Your task to perform on an android device: Show me productivity apps on the Play Store Image 0: 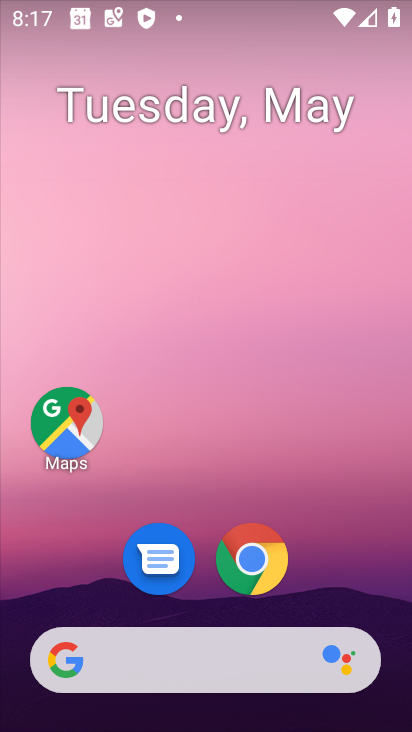
Step 0: drag from (187, 548) to (222, 68)
Your task to perform on an android device: Show me productivity apps on the Play Store Image 1: 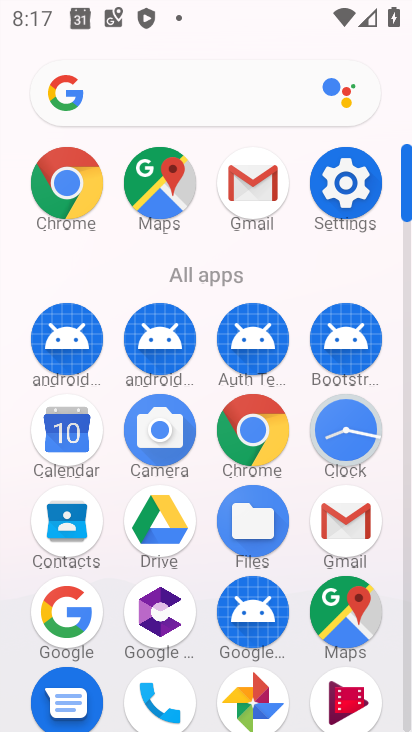
Step 1: drag from (232, 619) to (263, 122)
Your task to perform on an android device: Show me productivity apps on the Play Store Image 2: 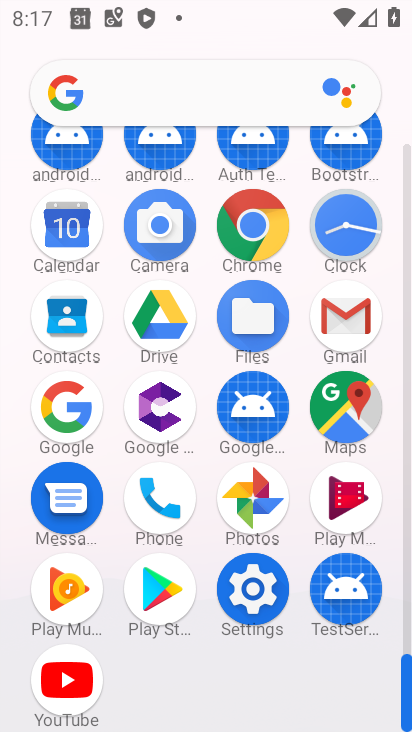
Step 2: click (158, 589)
Your task to perform on an android device: Show me productivity apps on the Play Store Image 3: 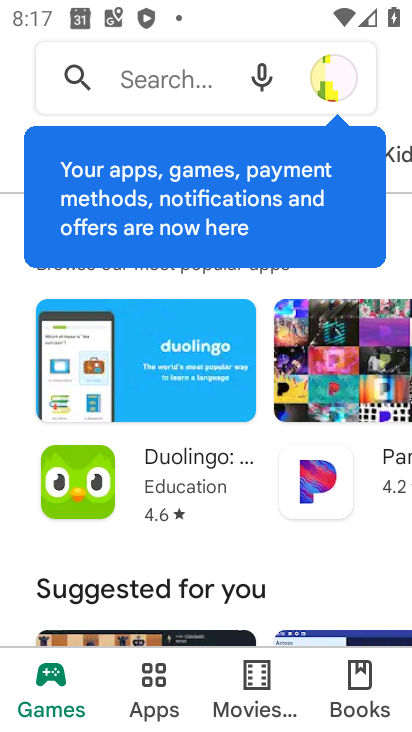
Step 3: click (144, 701)
Your task to perform on an android device: Show me productivity apps on the Play Store Image 4: 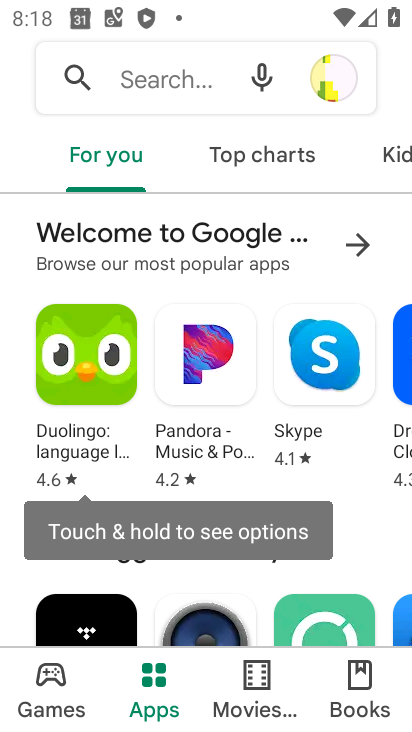
Step 4: drag from (184, 542) to (250, 90)
Your task to perform on an android device: Show me productivity apps on the Play Store Image 5: 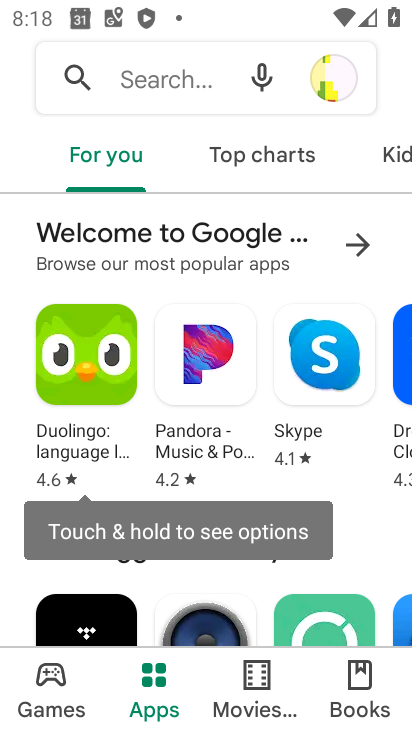
Step 5: drag from (258, 580) to (301, 111)
Your task to perform on an android device: Show me productivity apps on the Play Store Image 6: 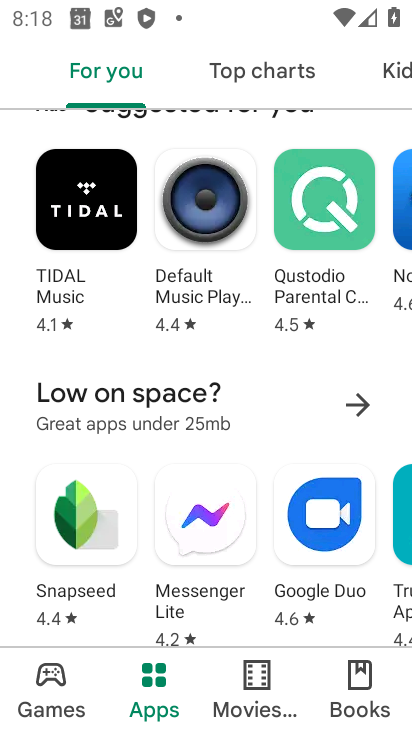
Step 6: drag from (201, 590) to (303, 83)
Your task to perform on an android device: Show me productivity apps on the Play Store Image 7: 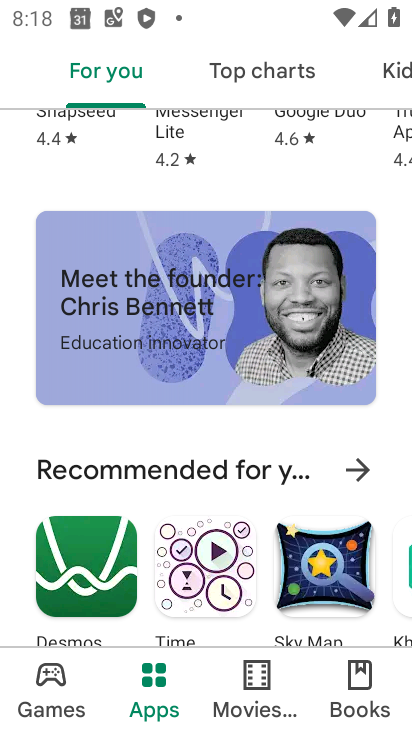
Step 7: drag from (198, 497) to (275, 67)
Your task to perform on an android device: Show me productivity apps on the Play Store Image 8: 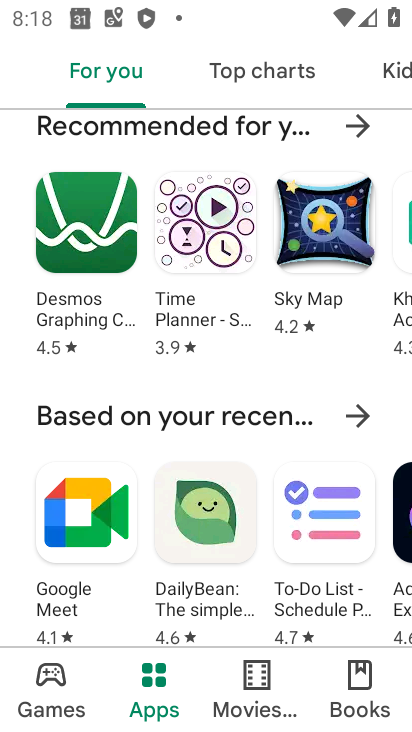
Step 8: drag from (208, 608) to (296, 97)
Your task to perform on an android device: Show me productivity apps on the Play Store Image 9: 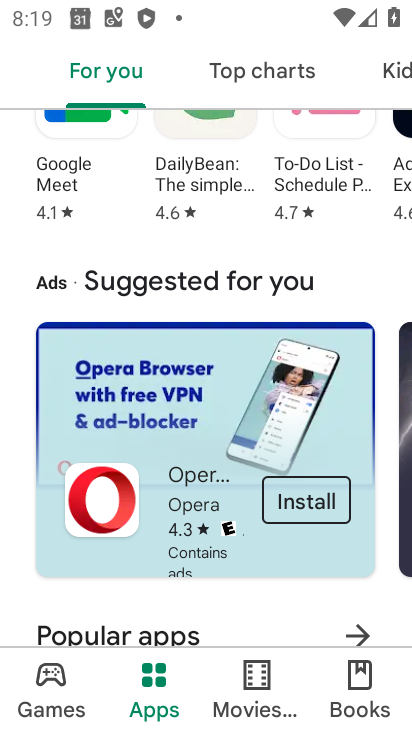
Step 9: drag from (228, 585) to (279, 160)
Your task to perform on an android device: Show me productivity apps on the Play Store Image 10: 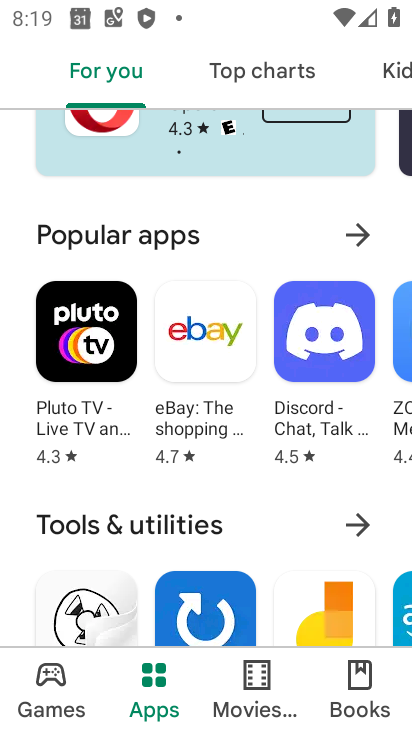
Step 10: drag from (224, 607) to (294, 170)
Your task to perform on an android device: Show me productivity apps on the Play Store Image 11: 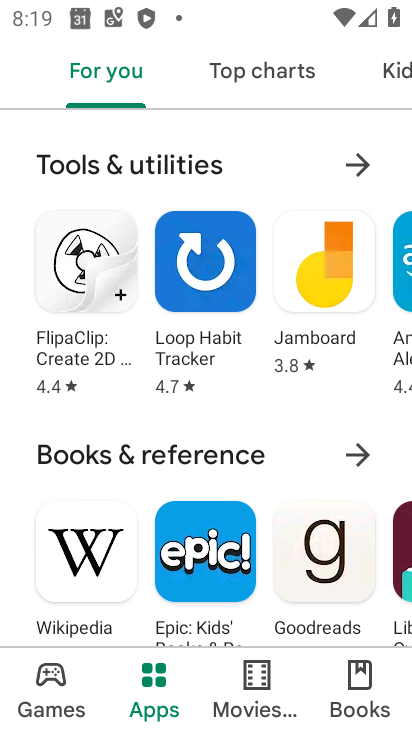
Step 11: drag from (218, 602) to (282, 182)
Your task to perform on an android device: Show me productivity apps on the Play Store Image 12: 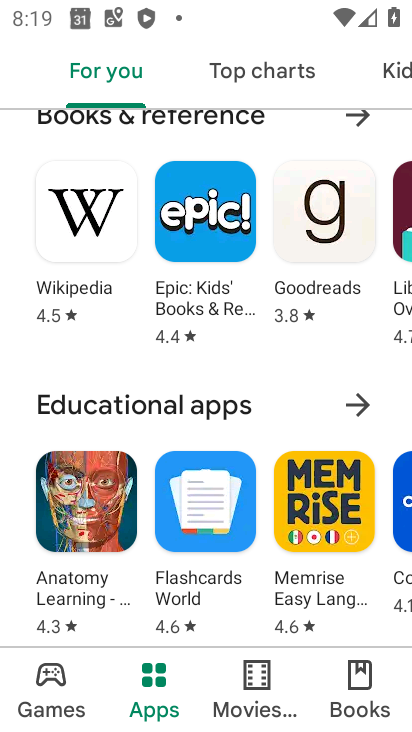
Step 12: drag from (204, 585) to (298, 170)
Your task to perform on an android device: Show me productivity apps on the Play Store Image 13: 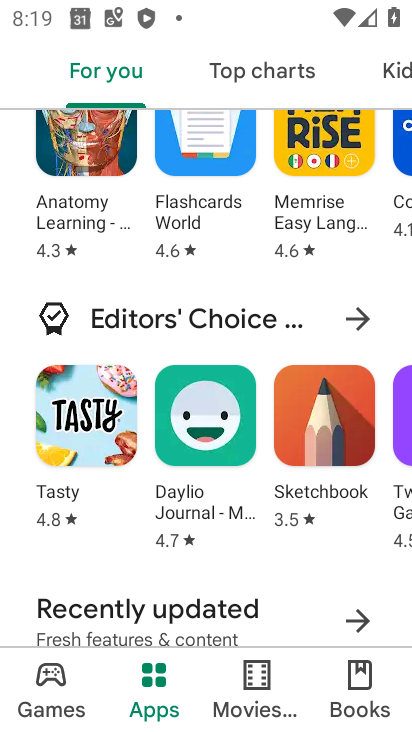
Step 13: drag from (212, 458) to (263, 235)
Your task to perform on an android device: Show me productivity apps on the Play Store Image 14: 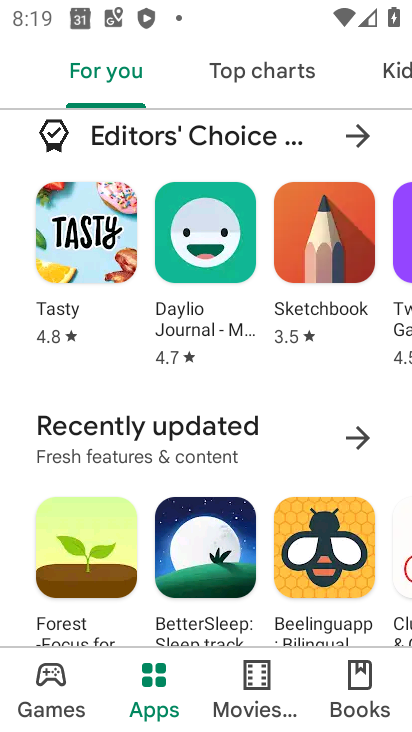
Step 14: drag from (224, 594) to (290, 139)
Your task to perform on an android device: Show me productivity apps on the Play Store Image 15: 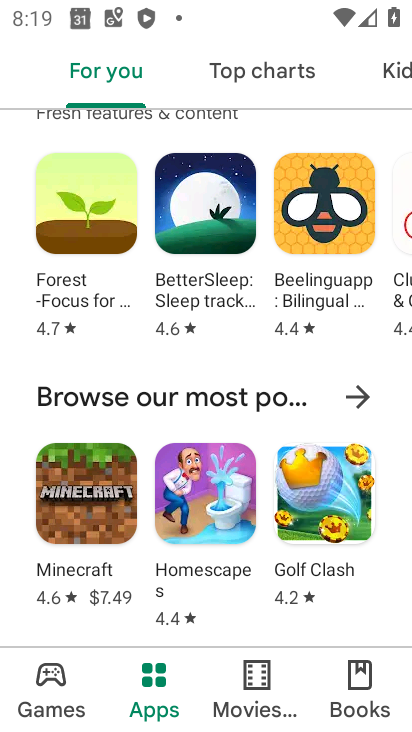
Step 15: drag from (229, 569) to (292, 138)
Your task to perform on an android device: Show me productivity apps on the Play Store Image 16: 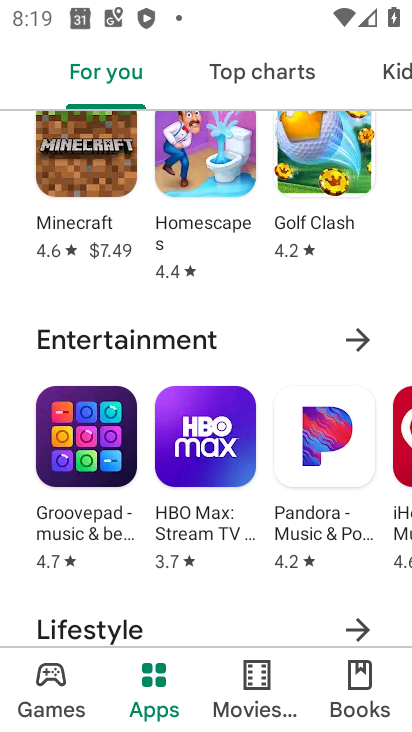
Step 16: drag from (183, 564) to (306, 66)
Your task to perform on an android device: Show me productivity apps on the Play Store Image 17: 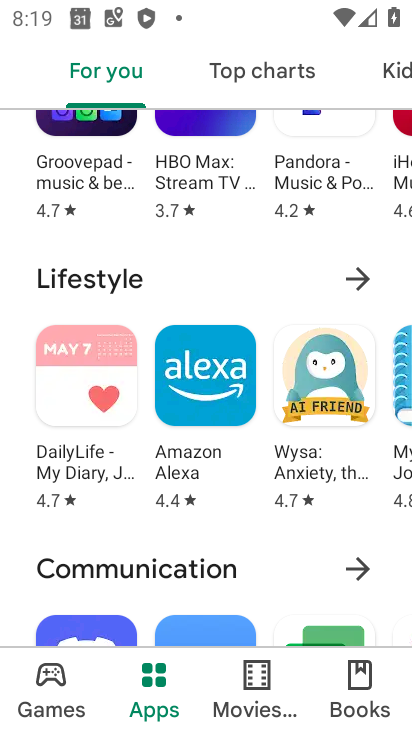
Step 17: drag from (230, 584) to (324, 89)
Your task to perform on an android device: Show me productivity apps on the Play Store Image 18: 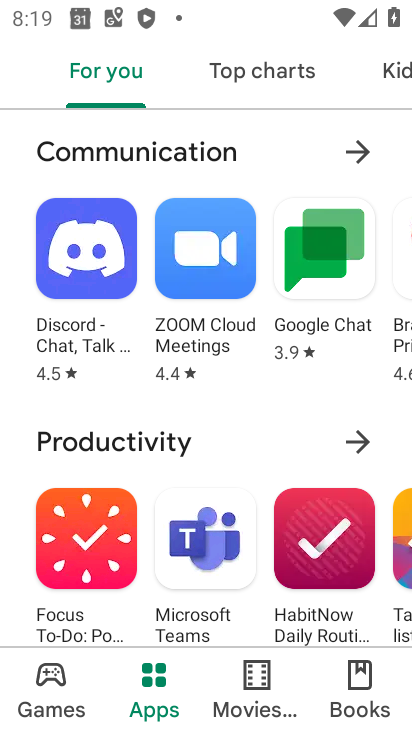
Step 18: click (355, 440)
Your task to perform on an android device: Show me productivity apps on the Play Store Image 19: 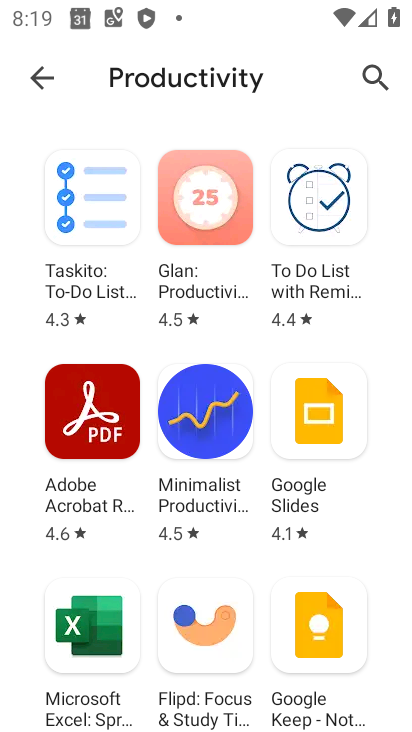
Step 19: task complete